Your task to perform on an android device: Open the calendar and show me this week's events Image 0: 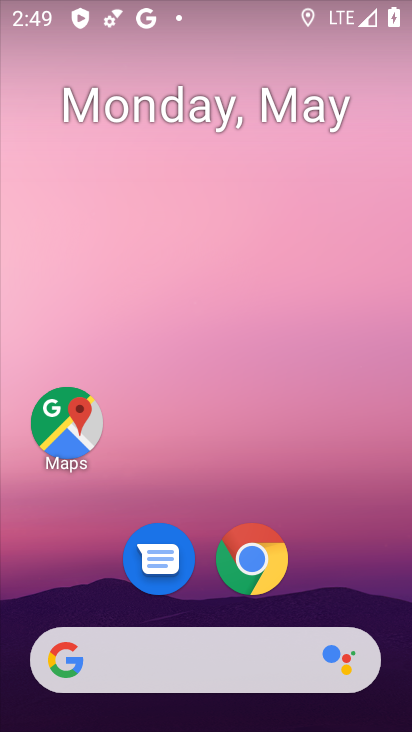
Step 0: drag from (340, 601) to (284, 36)
Your task to perform on an android device: Open the calendar and show me this week's events Image 1: 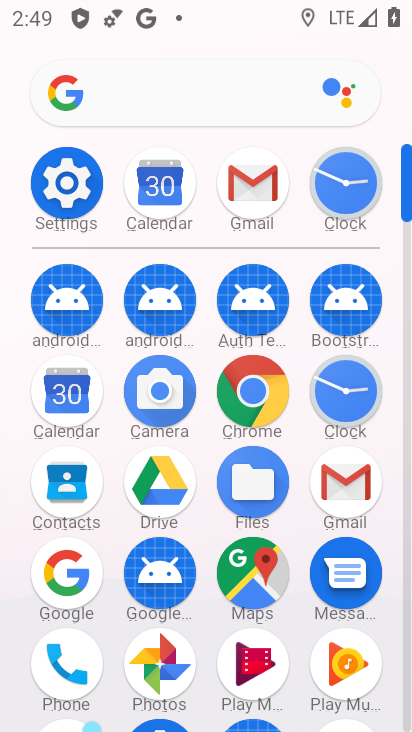
Step 1: click (52, 401)
Your task to perform on an android device: Open the calendar and show me this week's events Image 2: 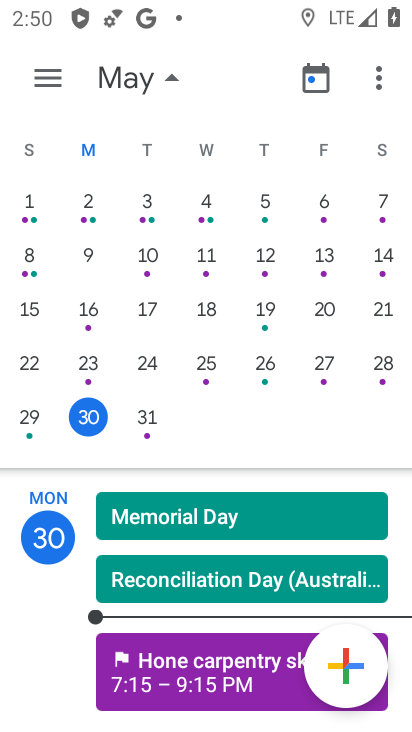
Step 2: click (83, 425)
Your task to perform on an android device: Open the calendar and show me this week's events Image 3: 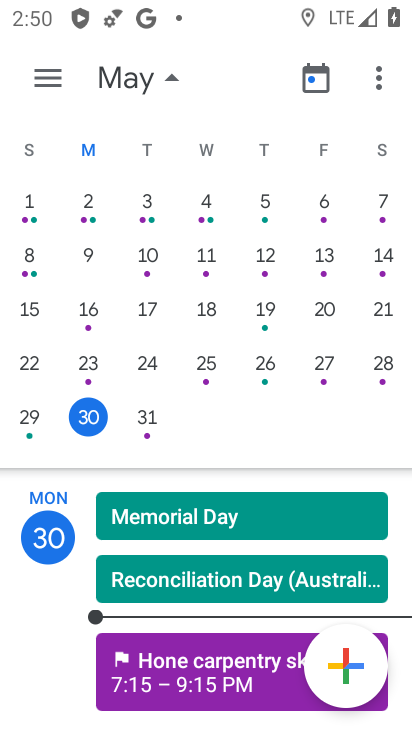
Step 3: task complete